Your task to perform on an android device: make emails show in primary in the gmail app Image 0: 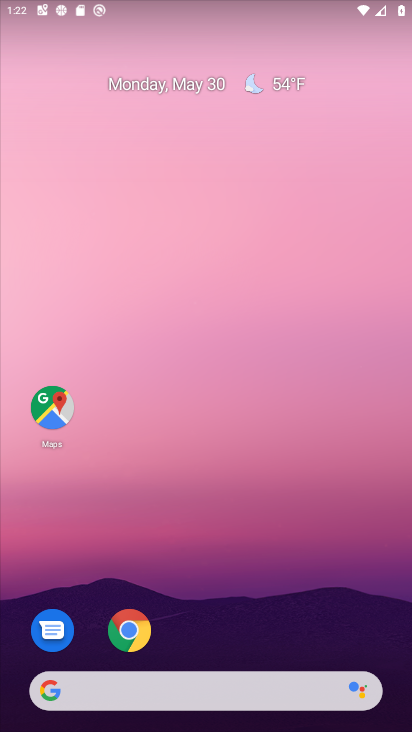
Step 0: press home button
Your task to perform on an android device: make emails show in primary in the gmail app Image 1: 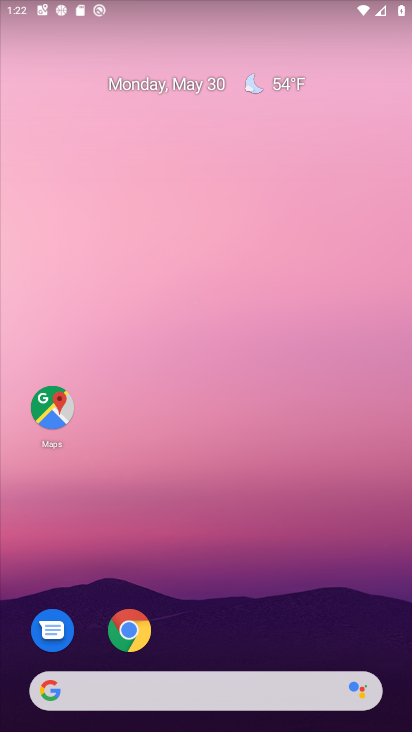
Step 1: drag from (131, 682) to (269, 208)
Your task to perform on an android device: make emails show in primary in the gmail app Image 2: 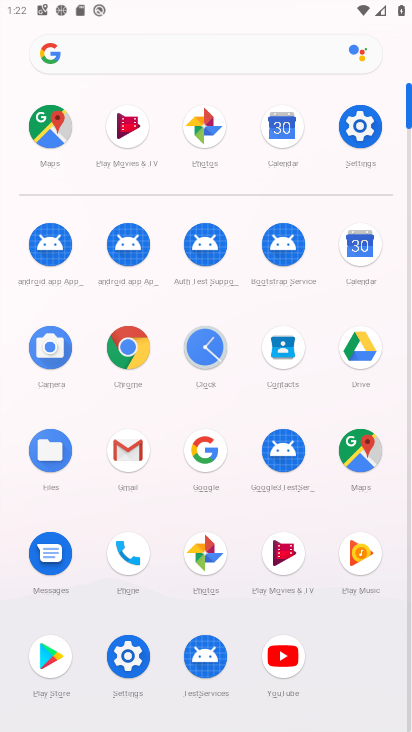
Step 2: click (119, 461)
Your task to perform on an android device: make emails show in primary in the gmail app Image 3: 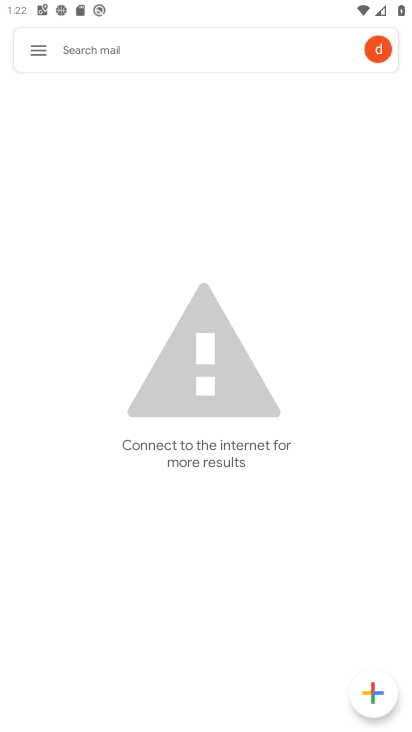
Step 3: drag from (195, 143) to (121, 384)
Your task to perform on an android device: make emails show in primary in the gmail app Image 4: 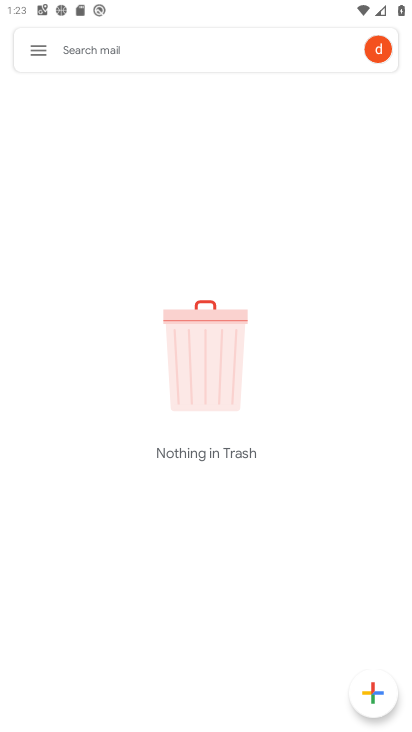
Step 4: click (35, 47)
Your task to perform on an android device: make emails show in primary in the gmail app Image 5: 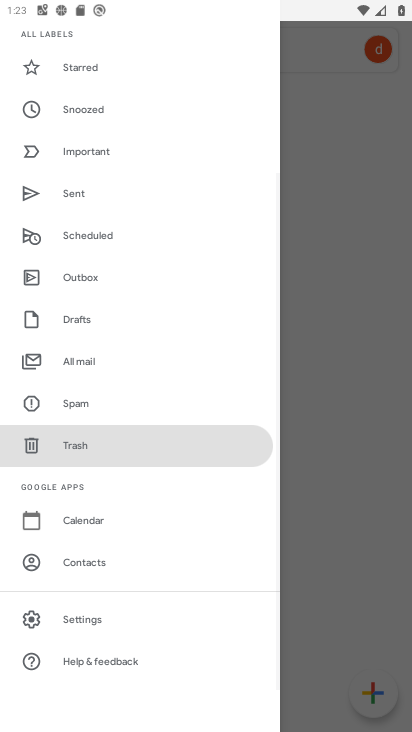
Step 5: click (90, 617)
Your task to perform on an android device: make emails show in primary in the gmail app Image 6: 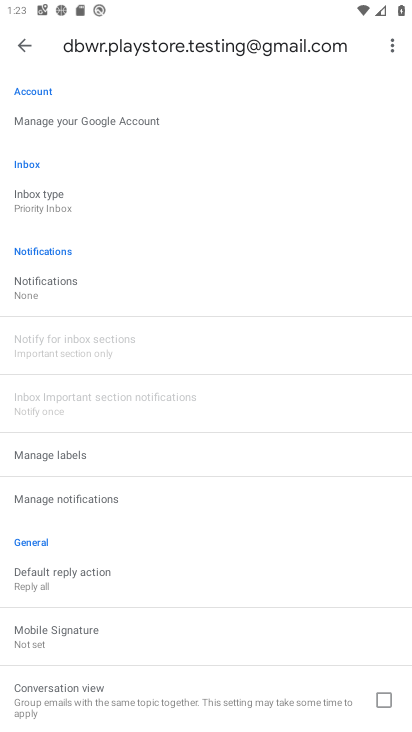
Step 6: task complete